Your task to perform on an android device: Open the map Image 0: 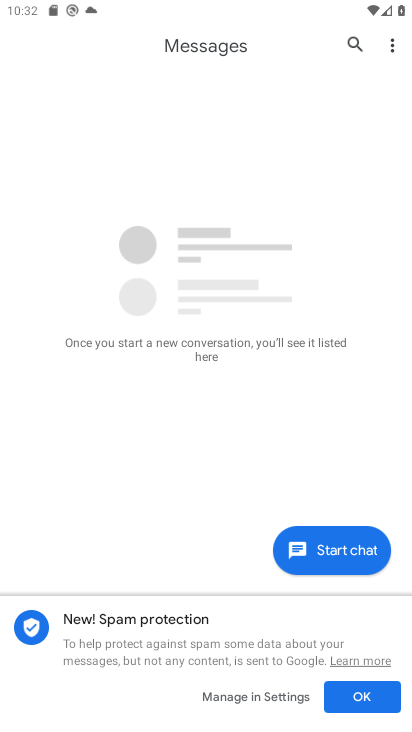
Step 0: press home button
Your task to perform on an android device: Open the map Image 1: 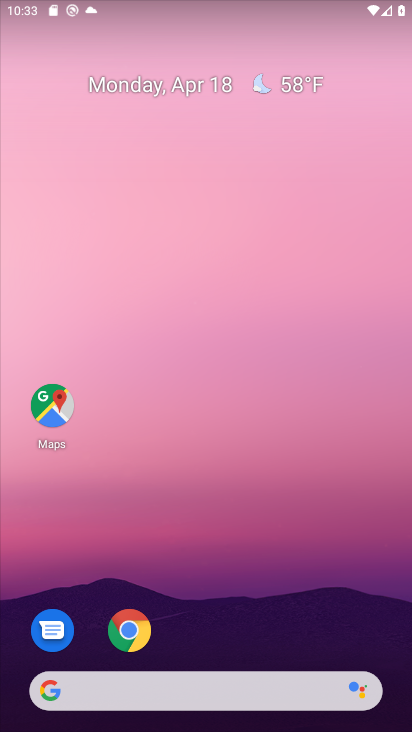
Step 1: click (57, 413)
Your task to perform on an android device: Open the map Image 2: 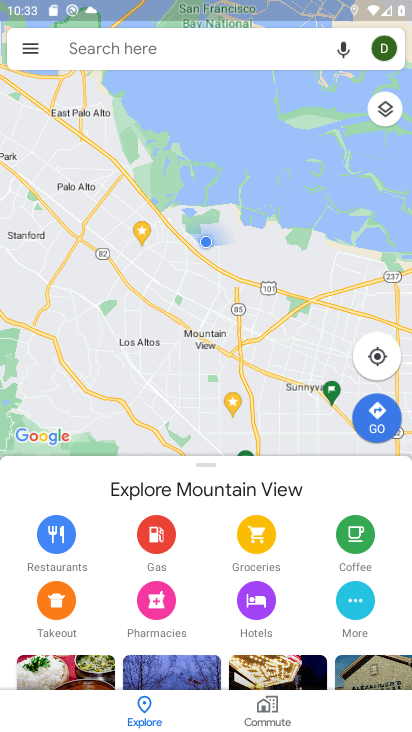
Step 2: task complete